Your task to perform on an android device: toggle sleep mode Image 0: 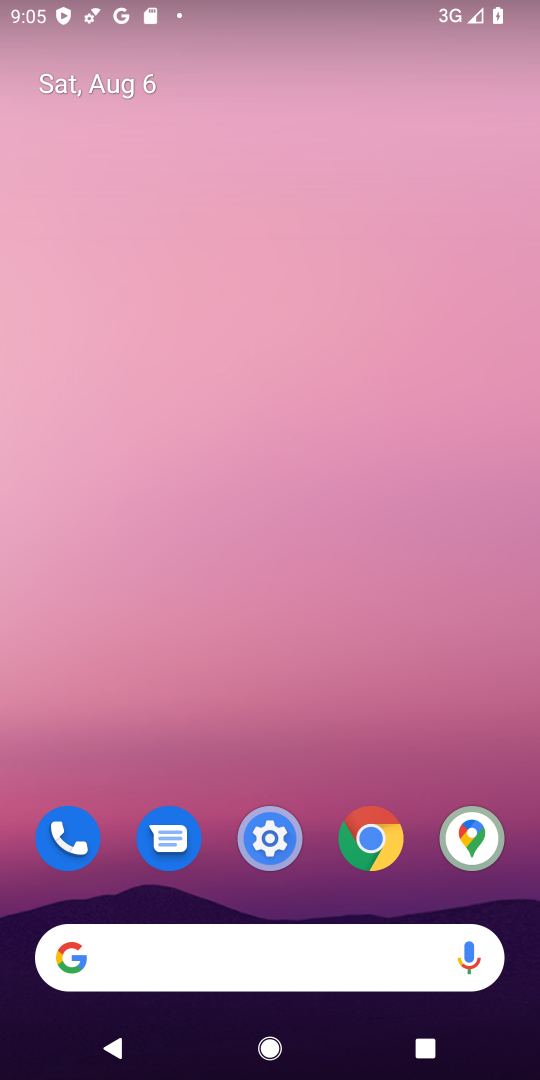
Step 0: drag from (418, 7) to (375, 1077)
Your task to perform on an android device: toggle sleep mode Image 1: 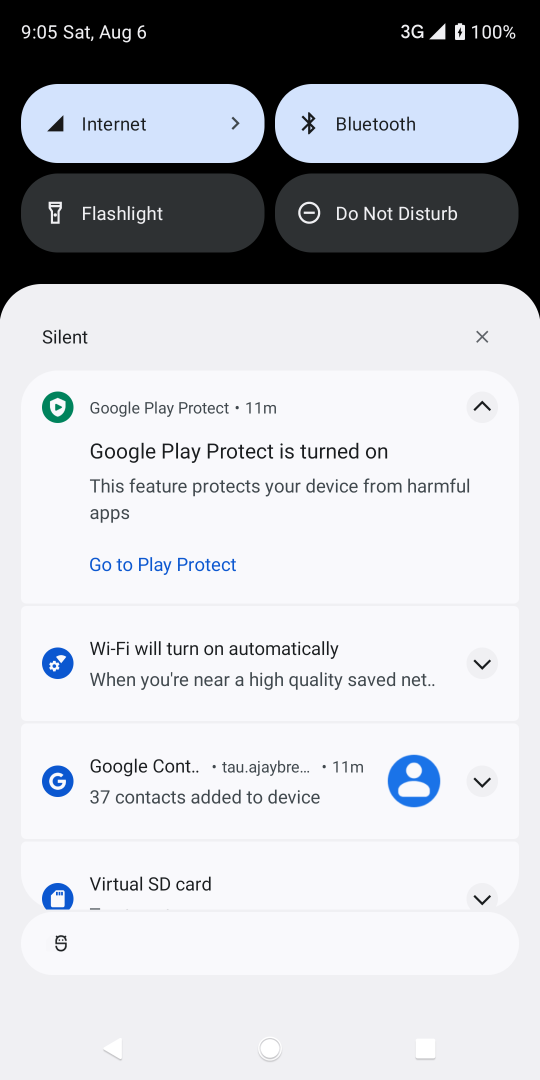
Step 1: task complete